Your task to perform on an android device: Open wifi settings Image 0: 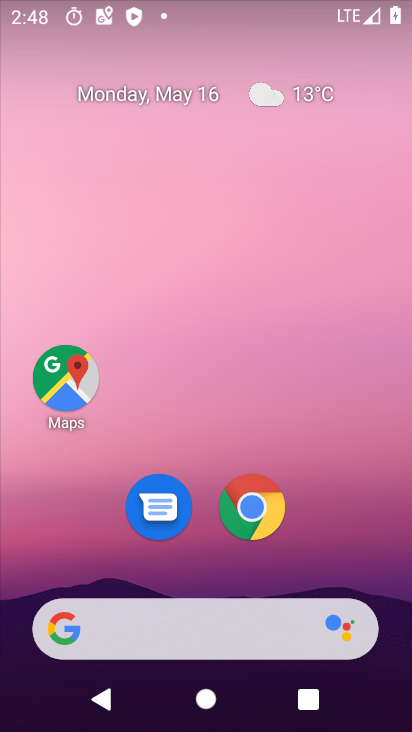
Step 0: drag from (357, 535) to (350, 73)
Your task to perform on an android device: Open wifi settings Image 1: 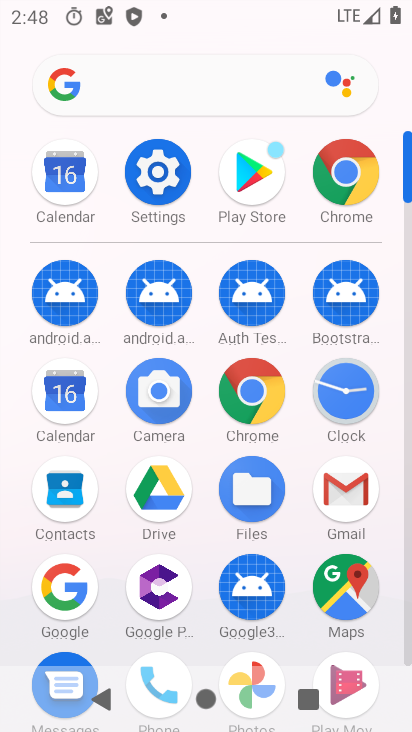
Step 1: click (164, 178)
Your task to perform on an android device: Open wifi settings Image 2: 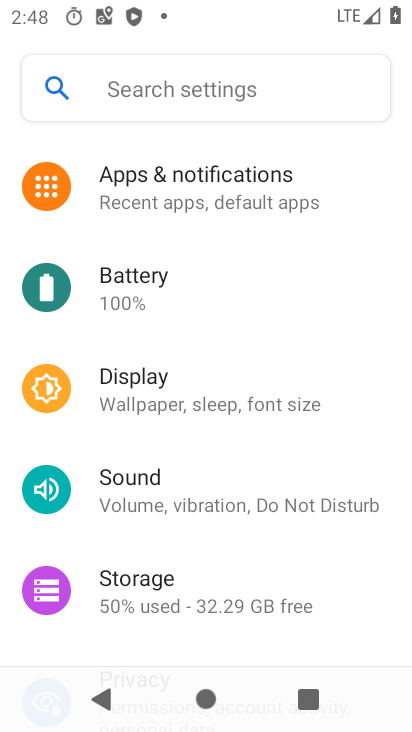
Step 2: drag from (362, 591) to (362, 415)
Your task to perform on an android device: Open wifi settings Image 3: 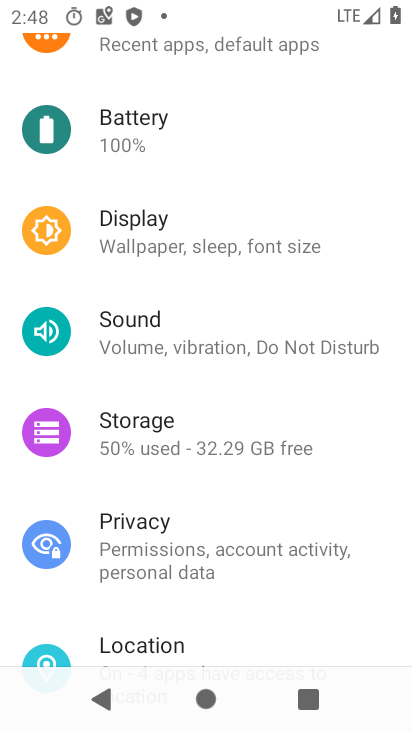
Step 3: drag from (356, 614) to (359, 429)
Your task to perform on an android device: Open wifi settings Image 4: 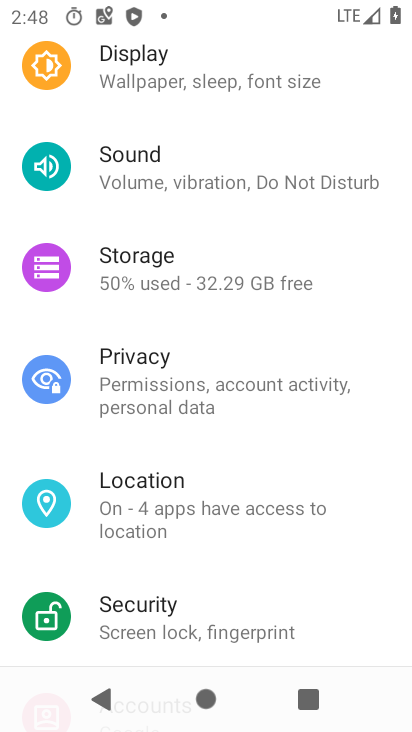
Step 4: drag from (362, 625) to (373, 459)
Your task to perform on an android device: Open wifi settings Image 5: 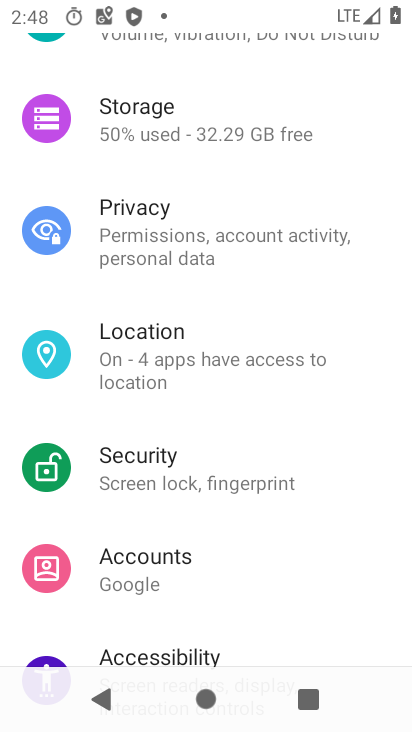
Step 5: drag from (359, 610) to (357, 492)
Your task to perform on an android device: Open wifi settings Image 6: 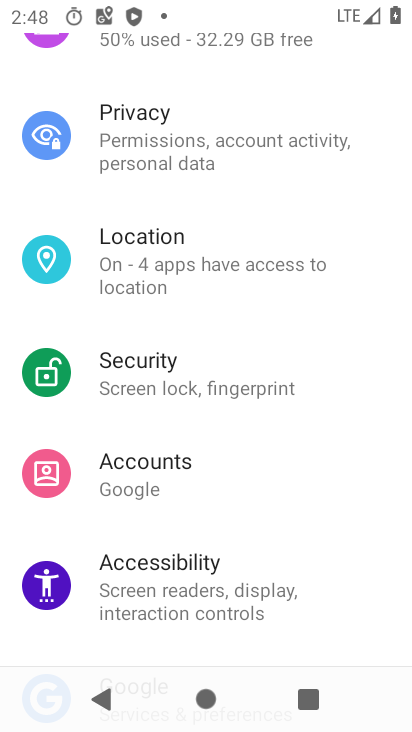
Step 6: drag from (344, 607) to (344, 487)
Your task to perform on an android device: Open wifi settings Image 7: 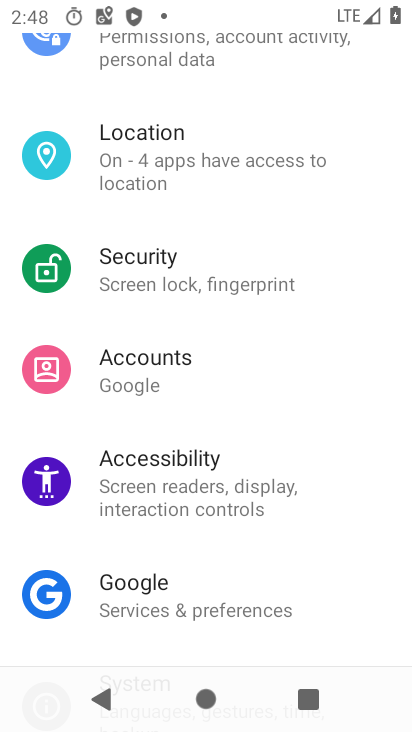
Step 7: drag from (348, 630) to (346, 482)
Your task to perform on an android device: Open wifi settings Image 8: 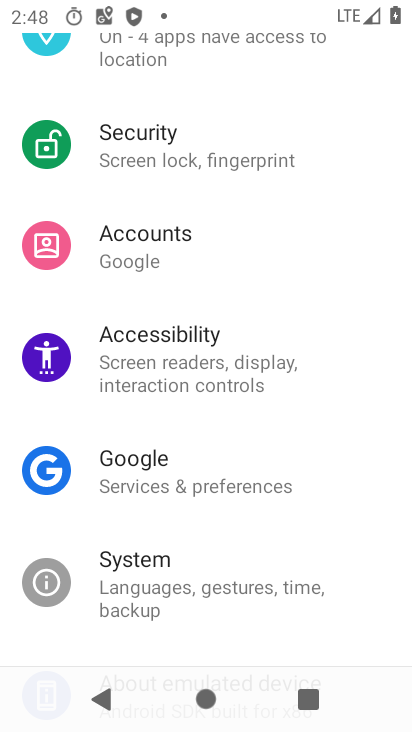
Step 8: drag from (348, 639) to (348, 508)
Your task to perform on an android device: Open wifi settings Image 9: 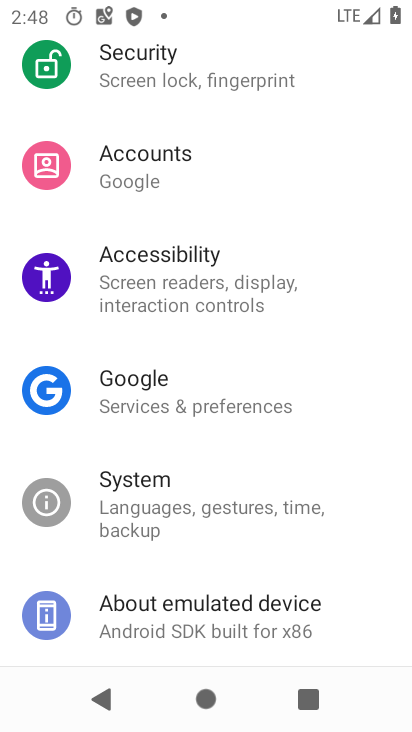
Step 9: drag from (358, 637) to (358, 518)
Your task to perform on an android device: Open wifi settings Image 10: 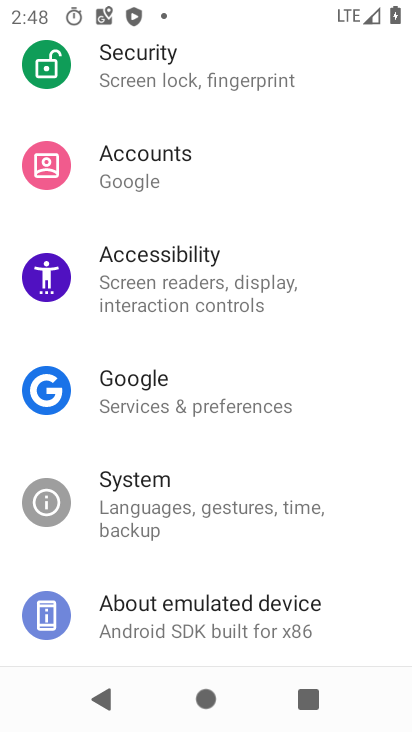
Step 10: drag from (356, 303) to (356, 449)
Your task to perform on an android device: Open wifi settings Image 11: 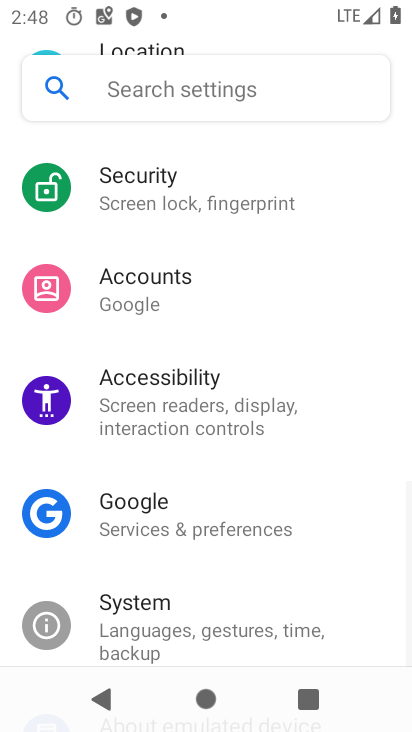
Step 11: drag from (355, 290) to (346, 408)
Your task to perform on an android device: Open wifi settings Image 12: 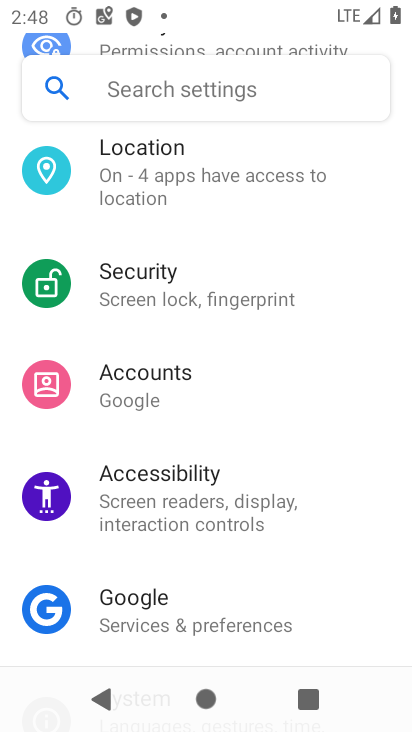
Step 12: drag from (327, 276) to (326, 436)
Your task to perform on an android device: Open wifi settings Image 13: 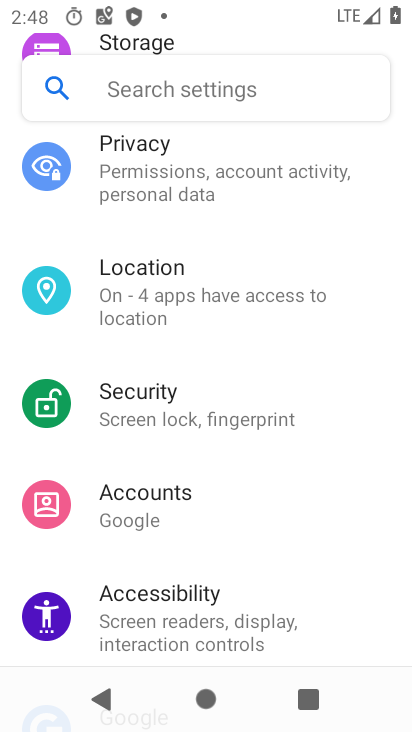
Step 13: drag from (352, 240) to (353, 407)
Your task to perform on an android device: Open wifi settings Image 14: 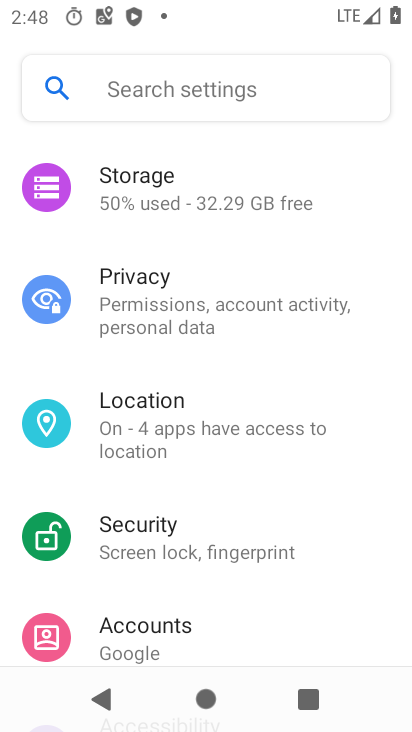
Step 14: drag from (356, 221) to (358, 384)
Your task to perform on an android device: Open wifi settings Image 15: 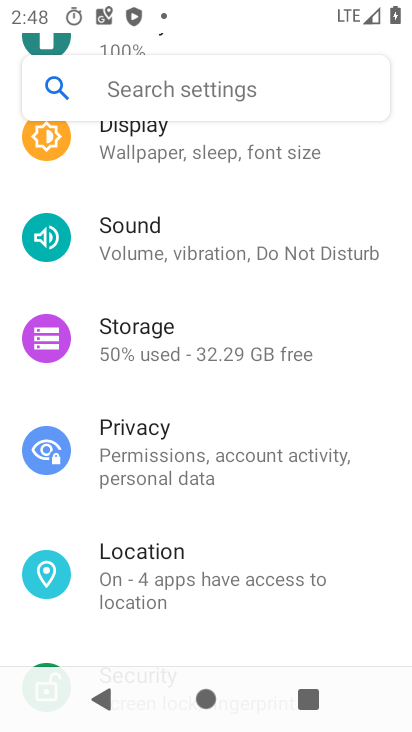
Step 15: drag from (380, 204) to (372, 350)
Your task to perform on an android device: Open wifi settings Image 16: 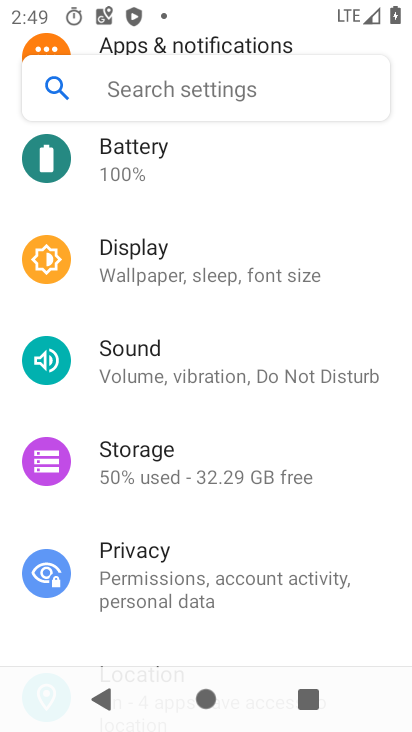
Step 16: drag from (361, 208) to (364, 361)
Your task to perform on an android device: Open wifi settings Image 17: 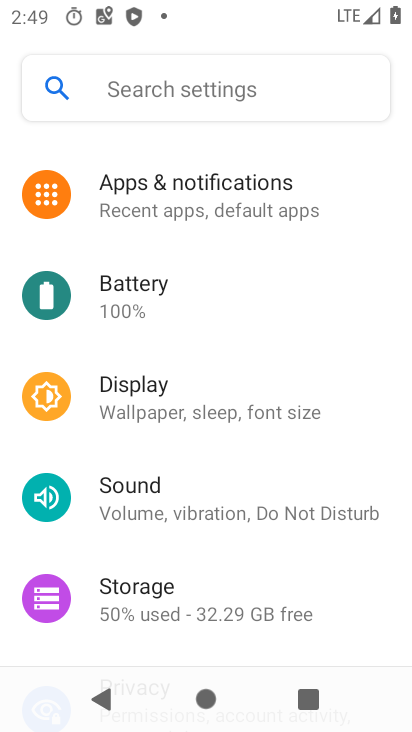
Step 17: drag from (378, 193) to (375, 347)
Your task to perform on an android device: Open wifi settings Image 18: 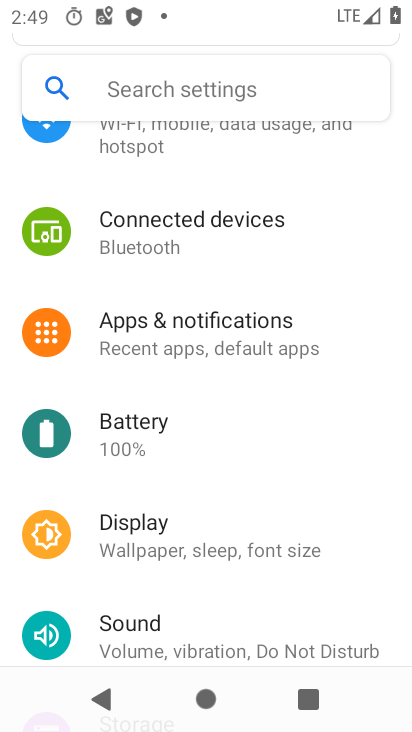
Step 18: drag from (347, 187) to (347, 325)
Your task to perform on an android device: Open wifi settings Image 19: 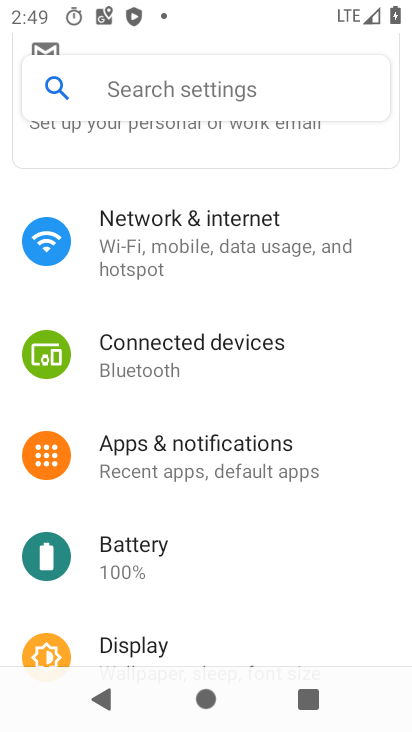
Step 19: click (204, 251)
Your task to perform on an android device: Open wifi settings Image 20: 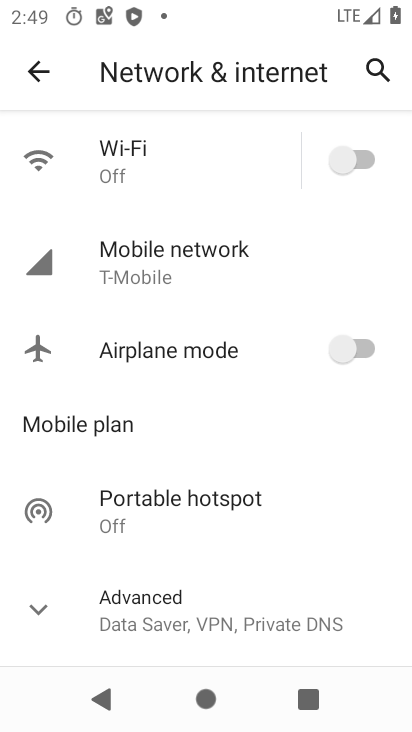
Step 20: click (134, 150)
Your task to perform on an android device: Open wifi settings Image 21: 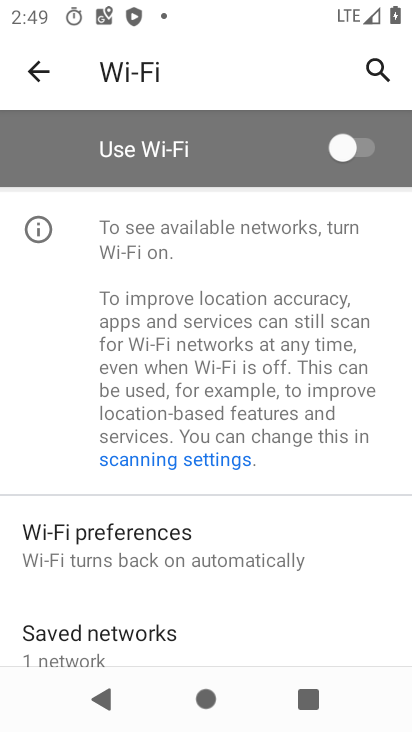
Step 21: task complete